Your task to perform on an android device: Open settings on Google Maps Image 0: 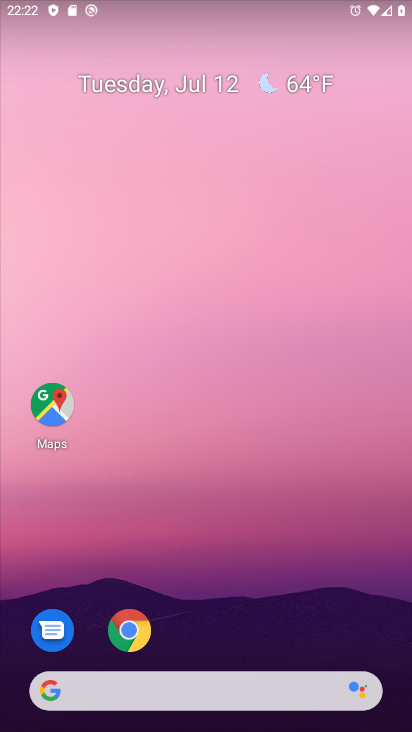
Step 0: drag from (216, 663) to (189, 219)
Your task to perform on an android device: Open settings on Google Maps Image 1: 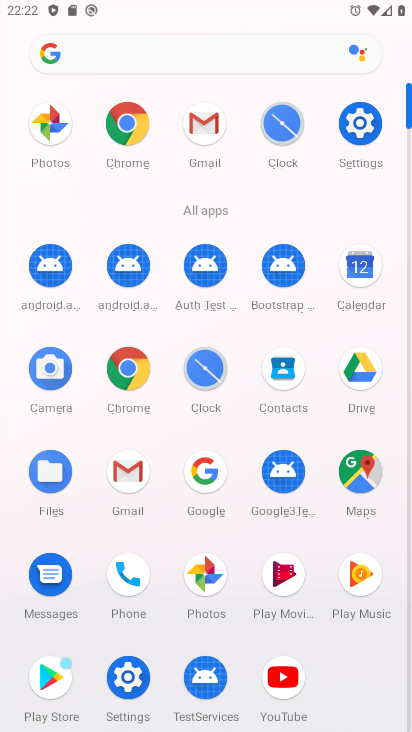
Step 1: click (364, 470)
Your task to perform on an android device: Open settings on Google Maps Image 2: 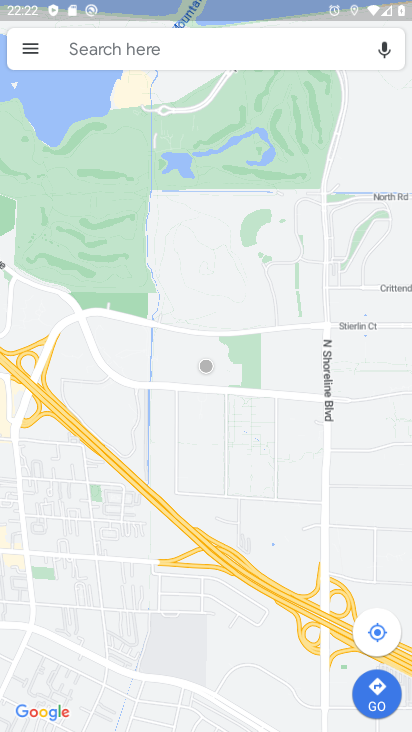
Step 2: click (26, 51)
Your task to perform on an android device: Open settings on Google Maps Image 3: 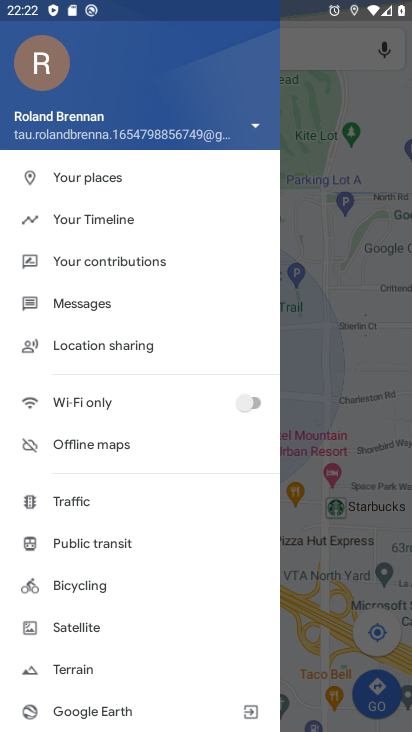
Step 3: drag from (130, 661) to (118, 98)
Your task to perform on an android device: Open settings on Google Maps Image 4: 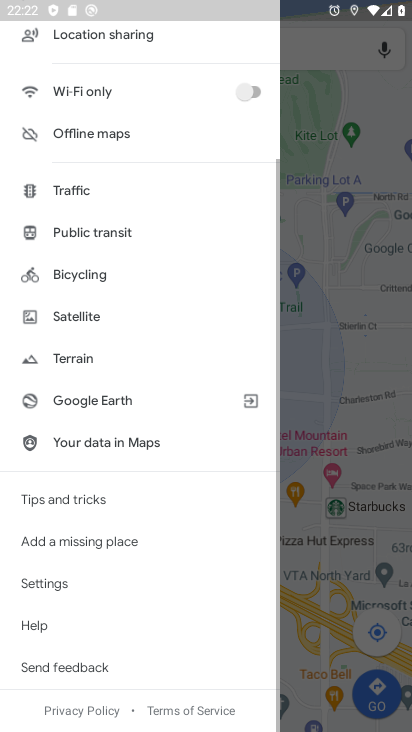
Step 4: click (63, 573)
Your task to perform on an android device: Open settings on Google Maps Image 5: 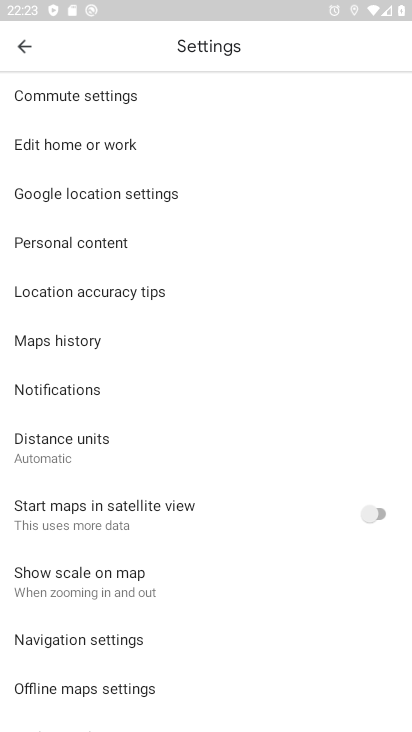
Step 5: task complete